Your task to perform on an android device: open device folders in google photos Image 0: 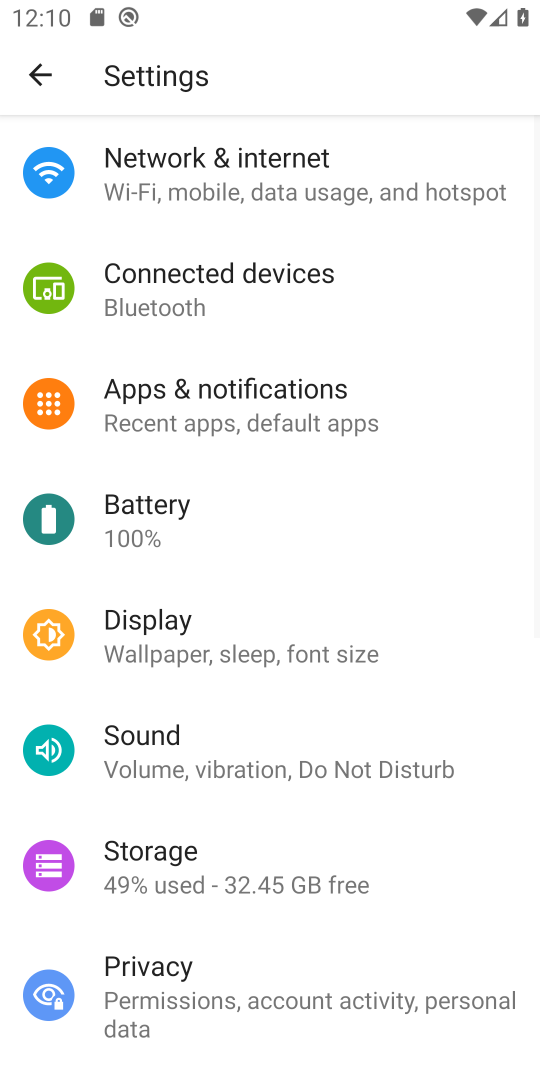
Step 0: press home button
Your task to perform on an android device: open device folders in google photos Image 1: 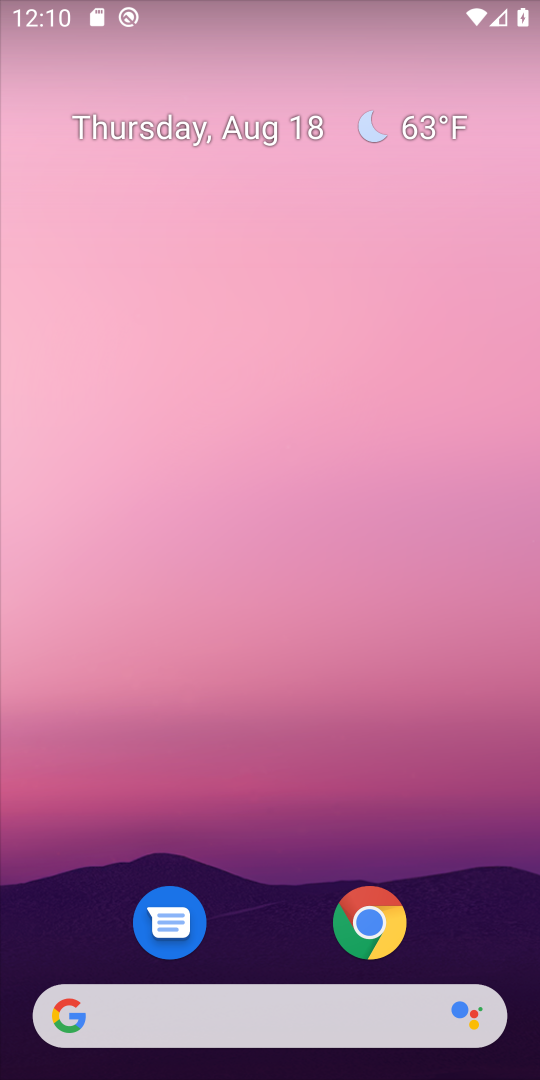
Step 1: drag from (280, 929) to (182, 333)
Your task to perform on an android device: open device folders in google photos Image 2: 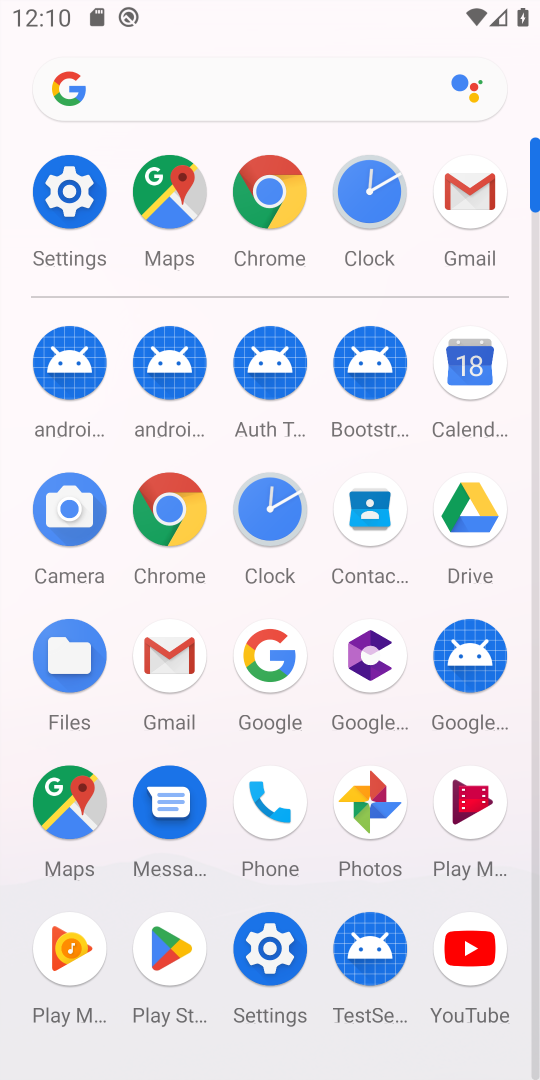
Step 2: click (367, 799)
Your task to perform on an android device: open device folders in google photos Image 3: 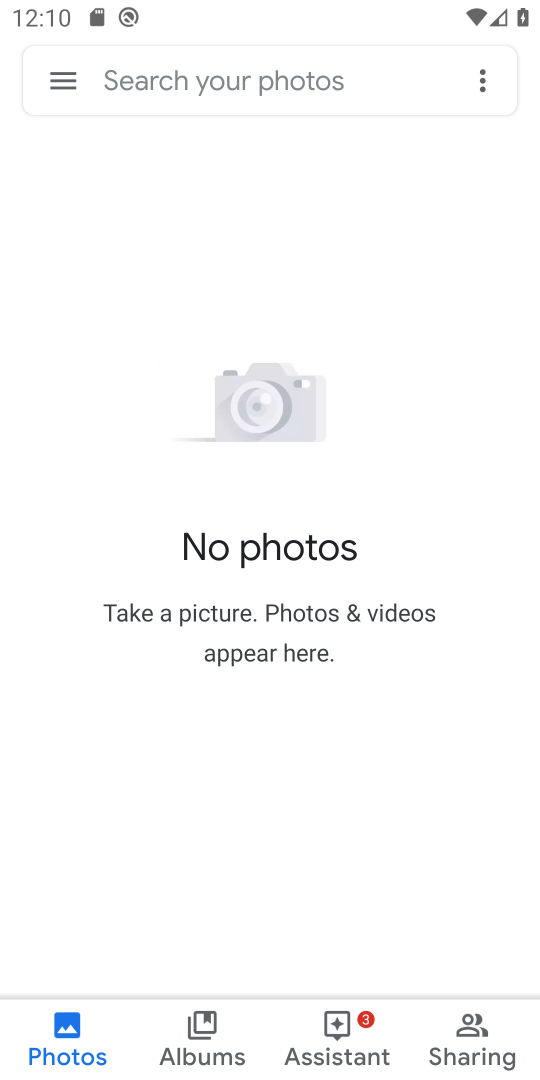
Step 3: click (71, 75)
Your task to perform on an android device: open device folders in google photos Image 4: 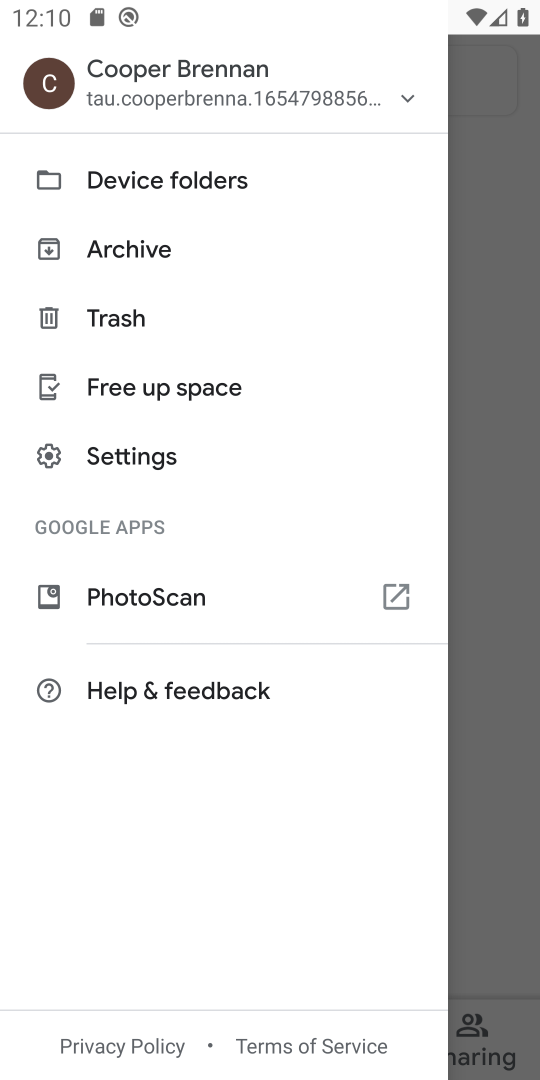
Step 4: click (128, 181)
Your task to perform on an android device: open device folders in google photos Image 5: 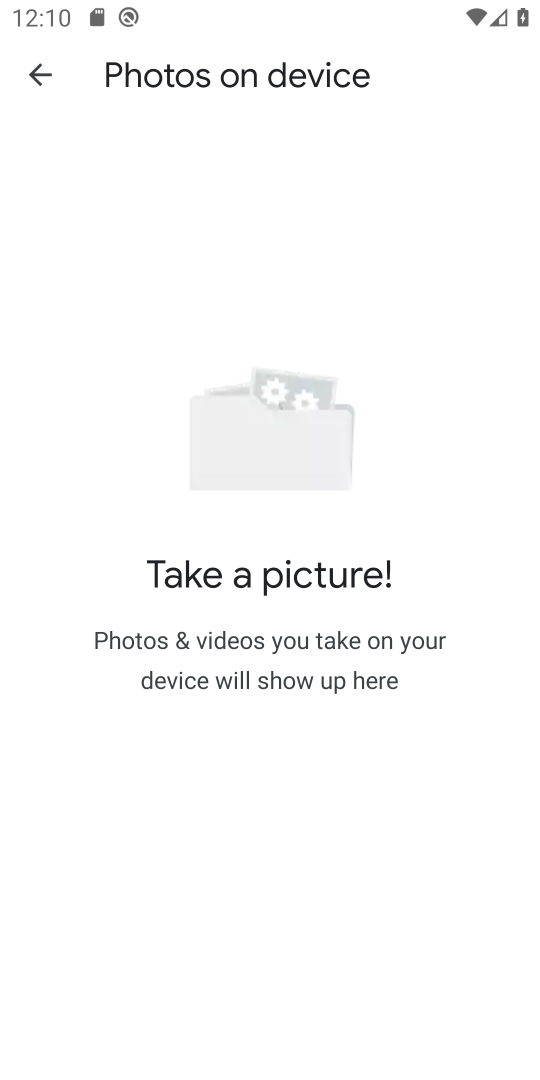
Step 5: task complete